Your task to perform on an android device: Go to eBay Image 0: 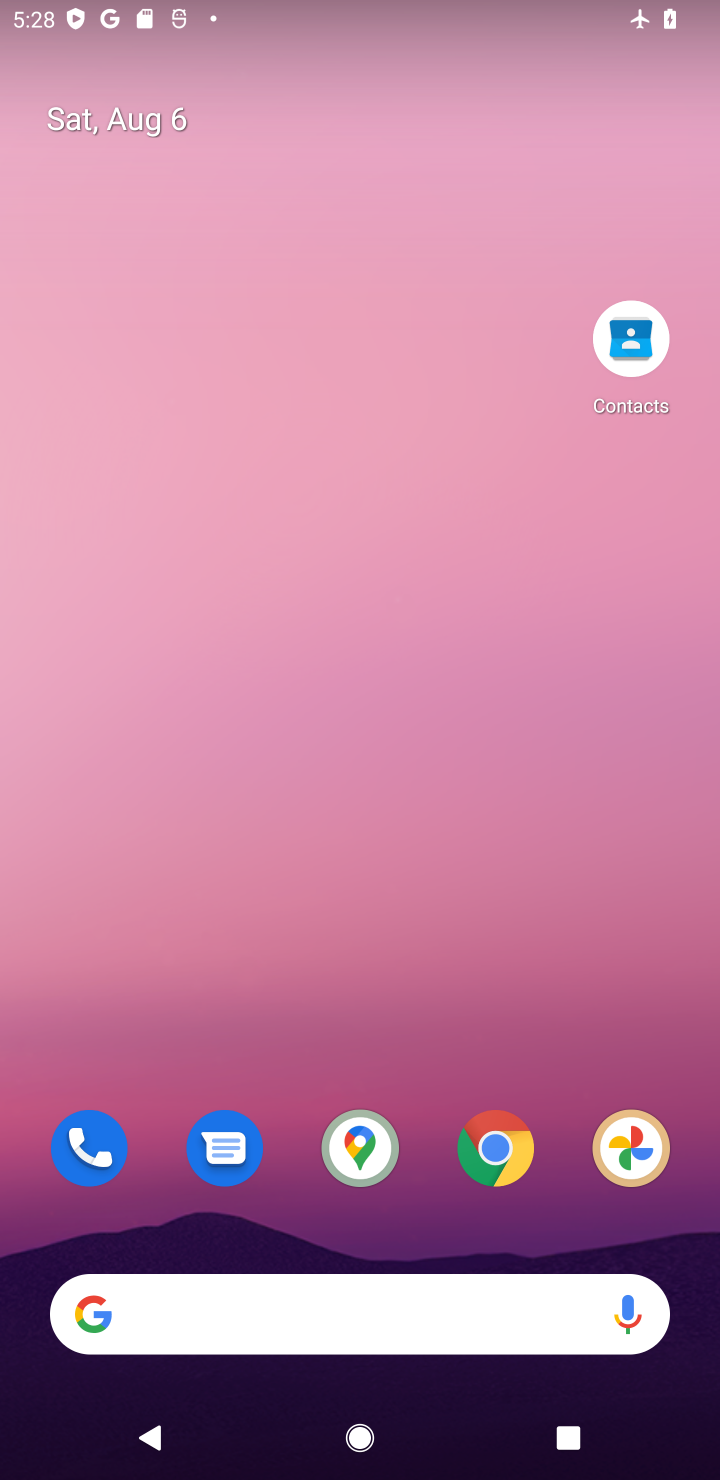
Step 0: drag from (375, 1227) to (573, 801)
Your task to perform on an android device: Go to eBay Image 1: 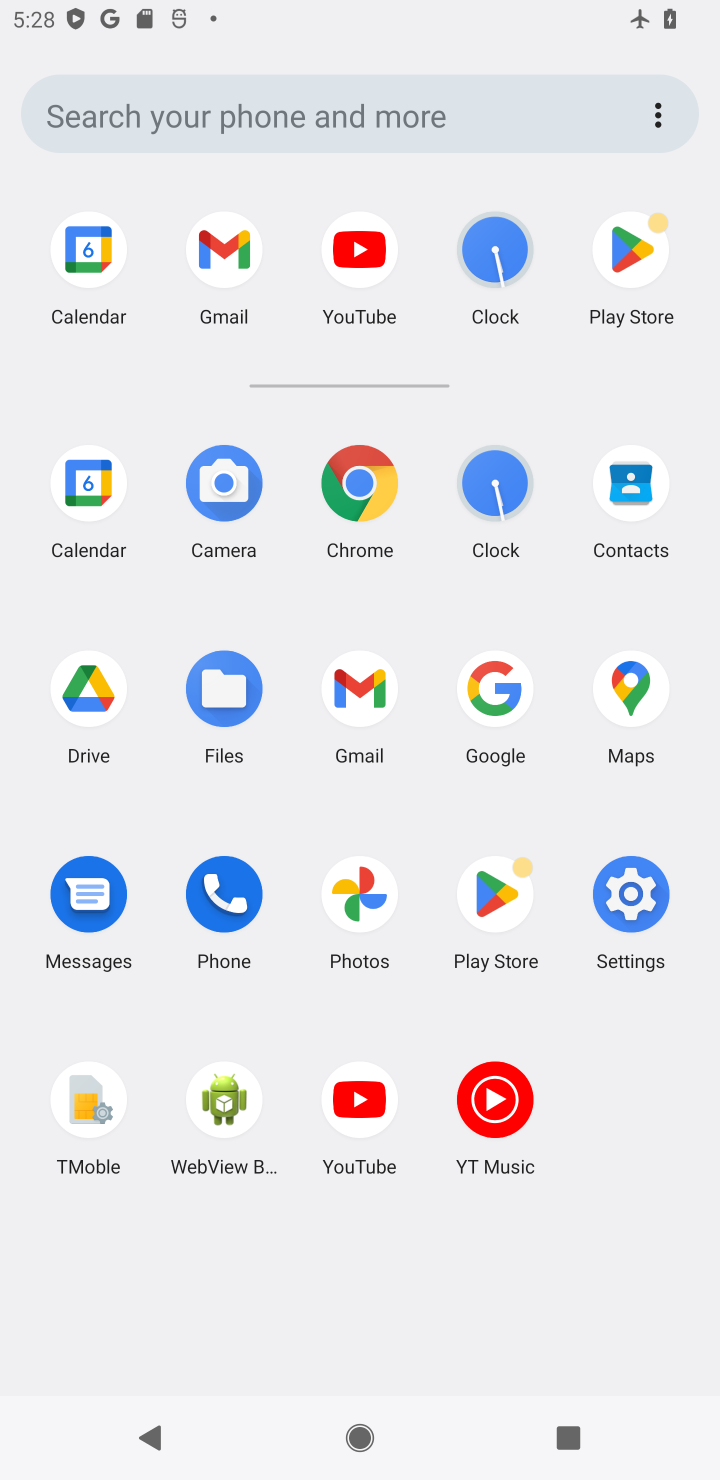
Step 1: click (375, 526)
Your task to perform on an android device: Go to eBay Image 2: 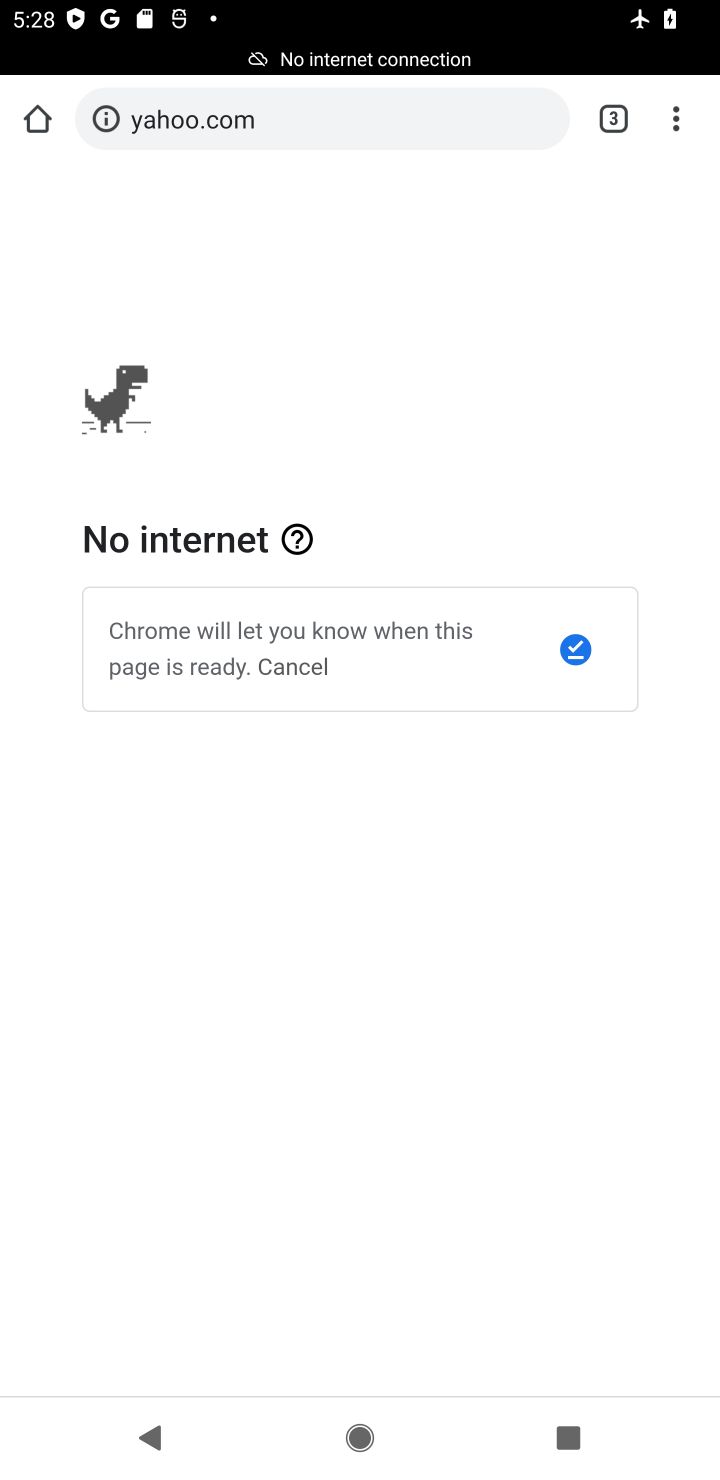
Step 2: click (612, 115)
Your task to perform on an android device: Go to eBay Image 3: 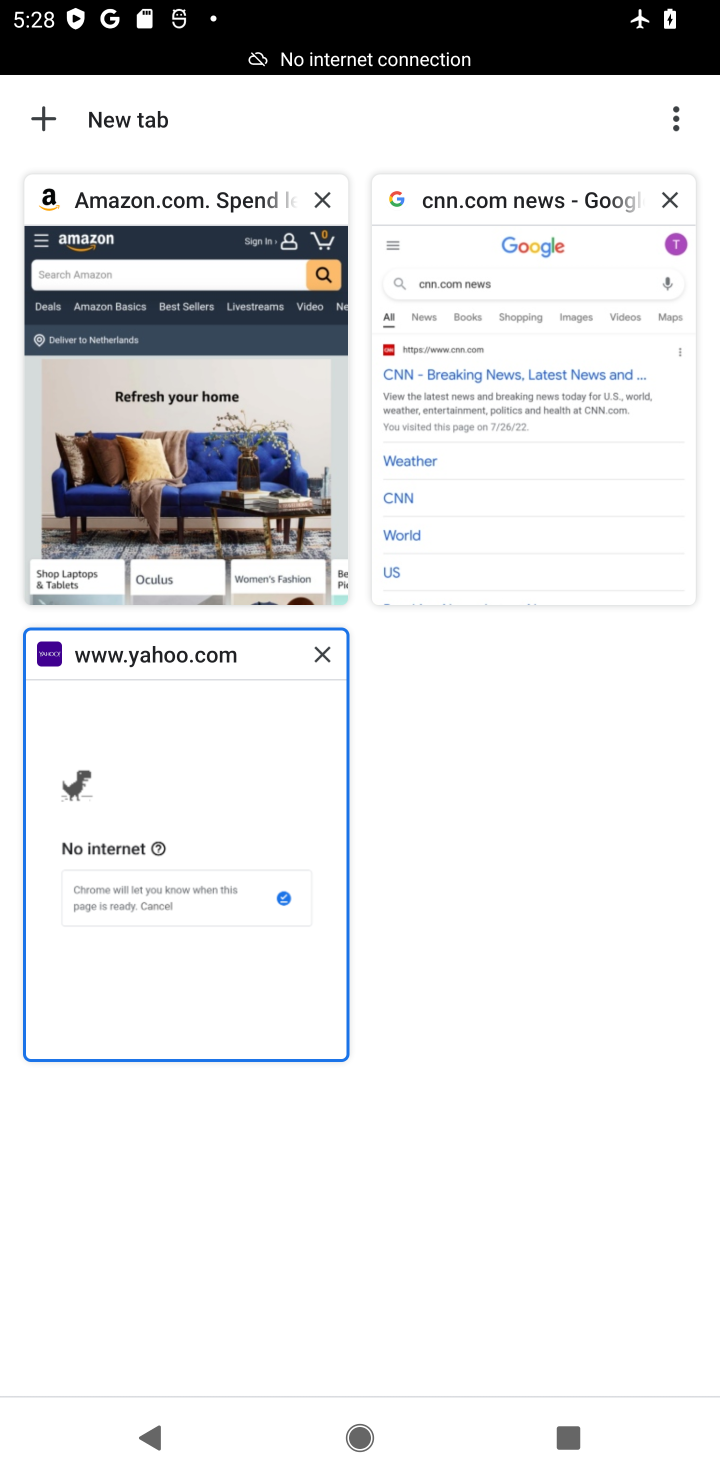
Step 3: click (47, 116)
Your task to perform on an android device: Go to eBay Image 4: 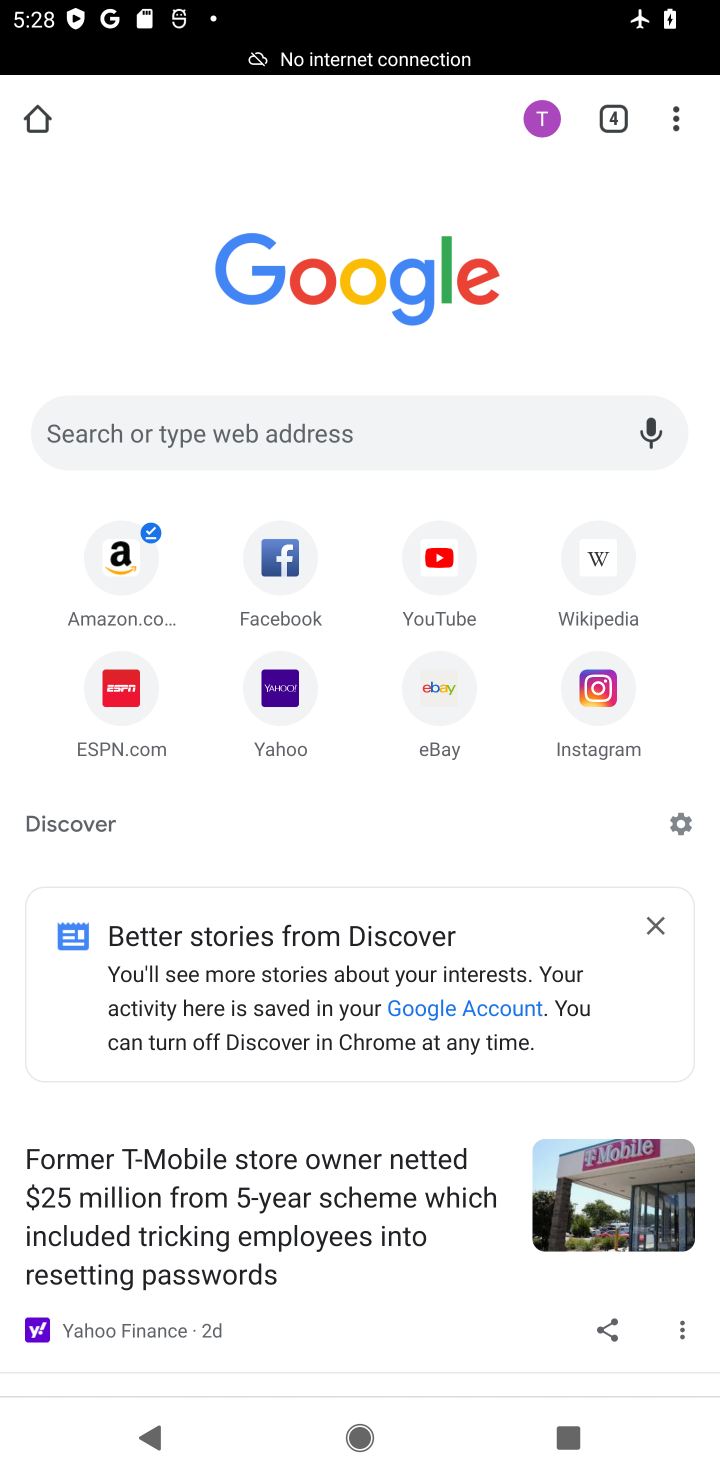
Step 4: click (459, 700)
Your task to perform on an android device: Go to eBay Image 5: 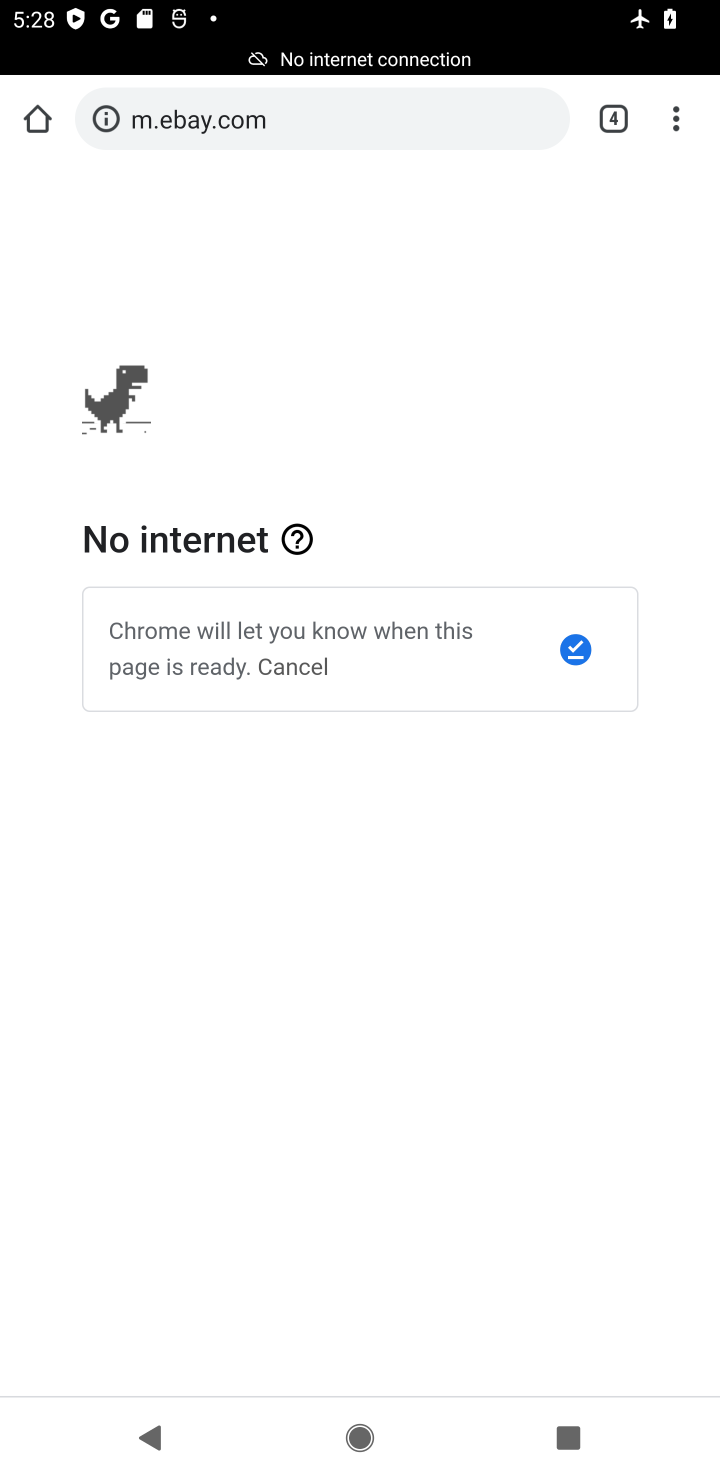
Step 5: task complete